Your task to perform on an android device: Search for Italian restaurants on Maps Image 0: 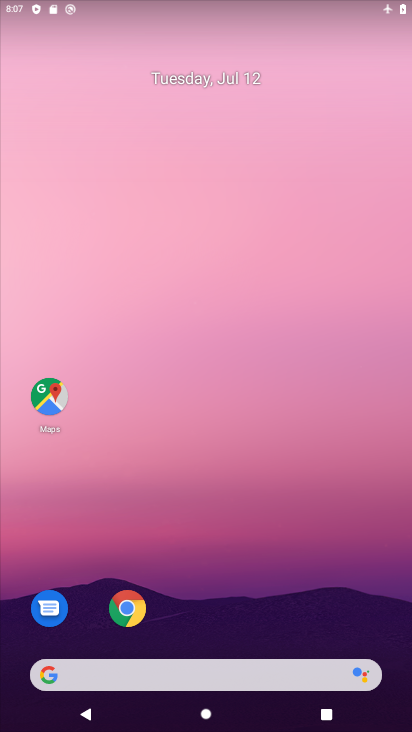
Step 0: drag from (241, 645) to (240, 127)
Your task to perform on an android device: Search for Italian restaurants on Maps Image 1: 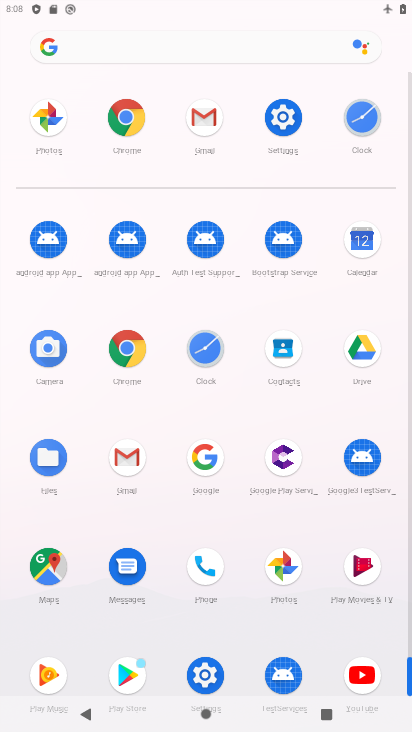
Step 1: click (53, 571)
Your task to perform on an android device: Search for Italian restaurants on Maps Image 2: 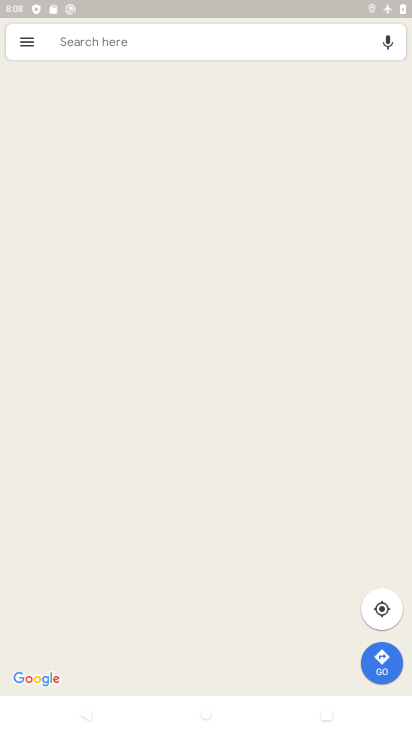
Step 2: click (158, 42)
Your task to perform on an android device: Search for Italian restaurants on Maps Image 3: 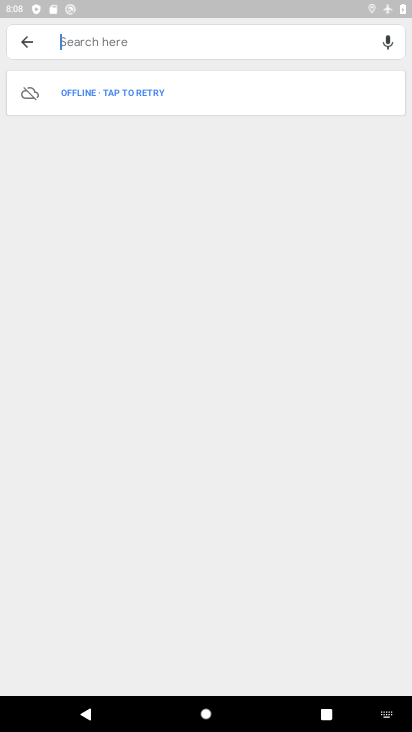
Step 3: type " Italian restaurants"
Your task to perform on an android device: Search for Italian restaurants on Maps Image 4: 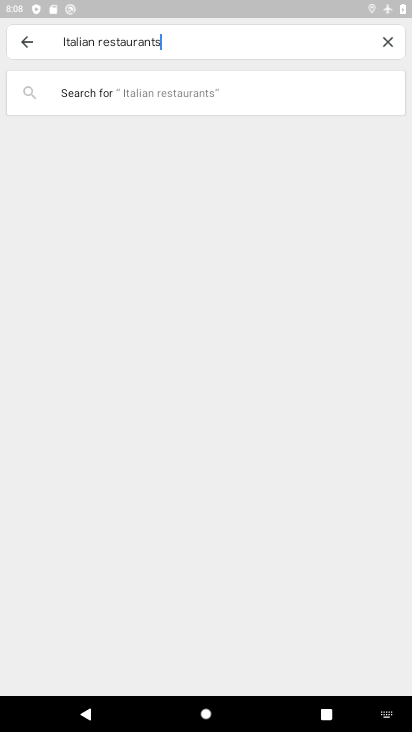
Step 4: type ""
Your task to perform on an android device: Search for Italian restaurants on Maps Image 5: 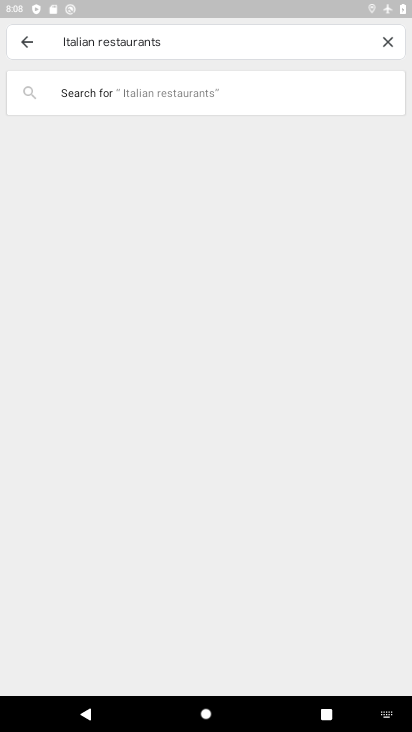
Step 5: task complete